Your task to perform on an android device: delete the emails in spam in the gmail app Image 0: 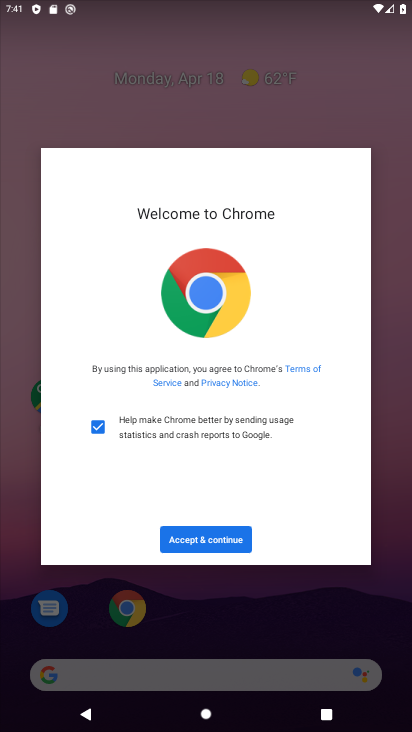
Step 0: press back button
Your task to perform on an android device: delete the emails in spam in the gmail app Image 1: 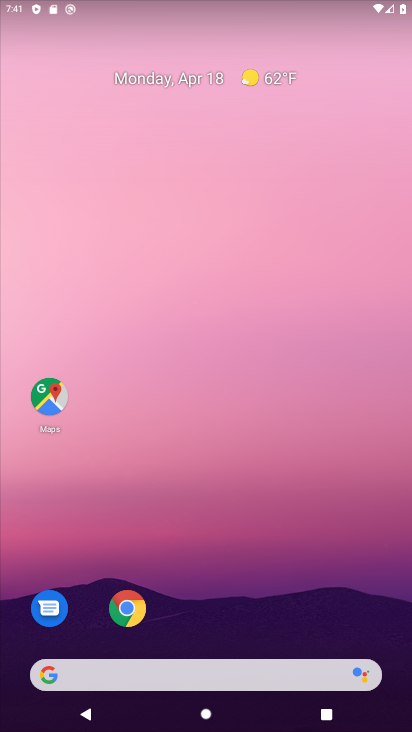
Step 1: drag from (205, 664) to (172, 213)
Your task to perform on an android device: delete the emails in spam in the gmail app Image 2: 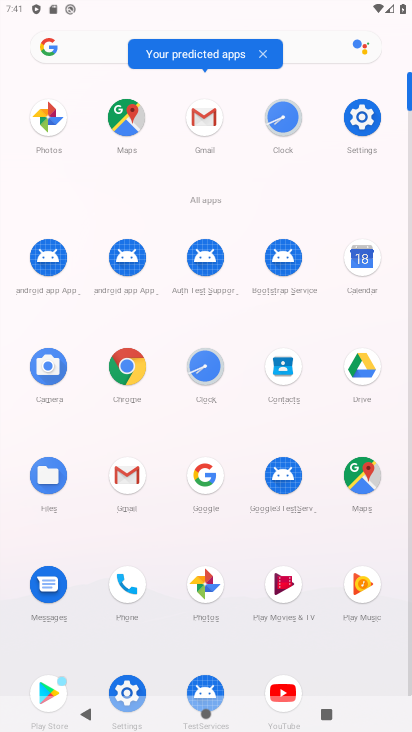
Step 2: click (126, 473)
Your task to perform on an android device: delete the emails in spam in the gmail app Image 3: 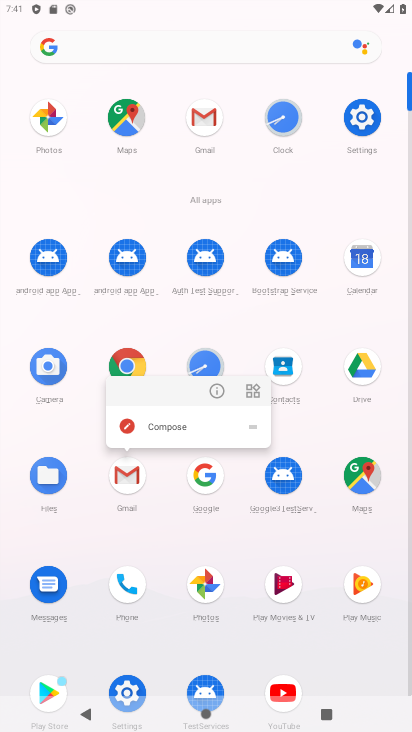
Step 3: click (126, 473)
Your task to perform on an android device: delete the emails in spam in the gmail app Image 4: 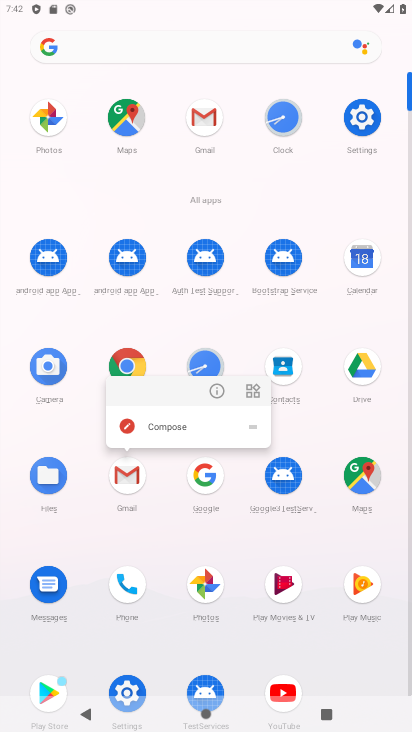
Step 4: click (137, 480)
Your task to perform on an android device: delete the emails in spam in the gmail app Image 5: 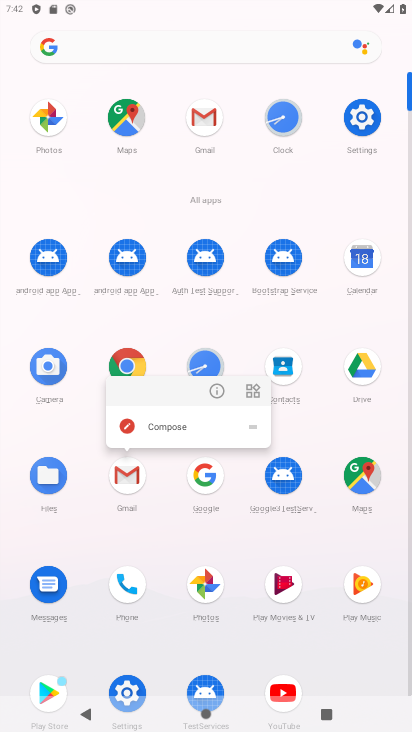
Step 5: click (137, 480)
Your task to perform on an android device: delete the emails in spam in the gmail app Image 6: 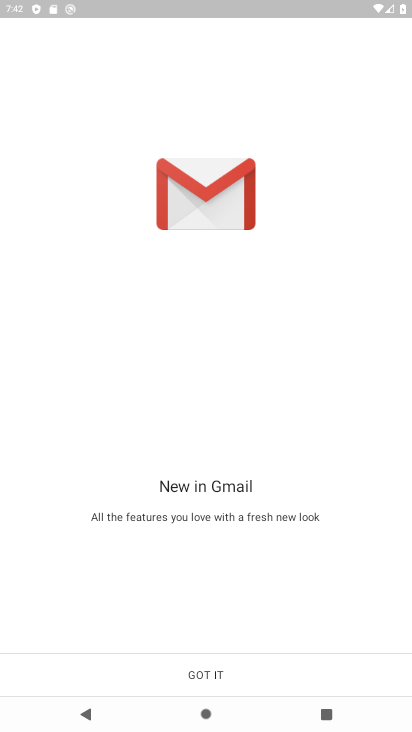
Step 6: click (191, 667)
Your task to perform on an android device: delete the emails in spam in the gmail app Image 7: 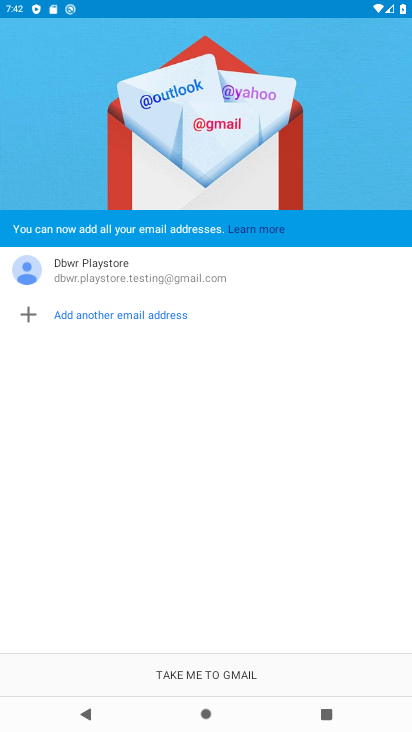
Step 7: click (206, 679)
Your task to perform on an android device: delete the emails in spam in the gmail app Image 8: 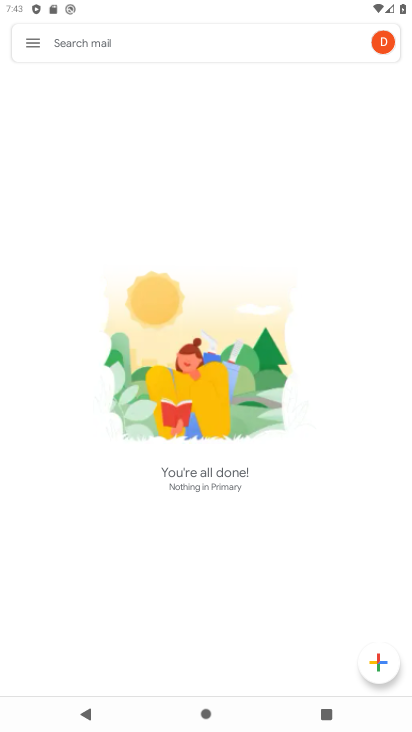
Step 8: click (30, 44)
Your task to perform on an android device: delete the emails in spam in the gmail app Image 9: 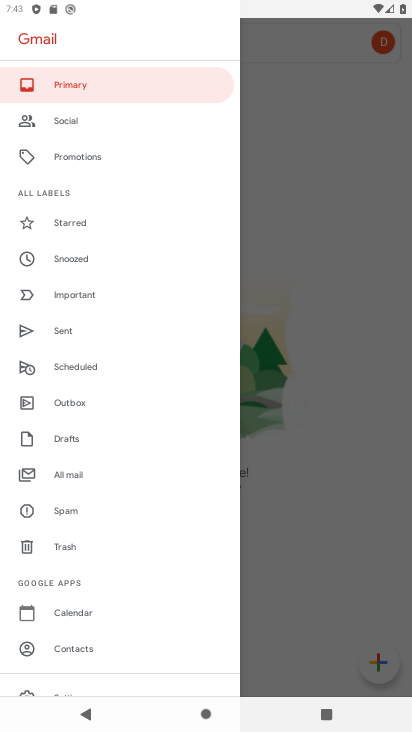
Step 9: click (54, 513)
Your task to perform on an android device: delete the emails in spam in the gmail app Image 10: 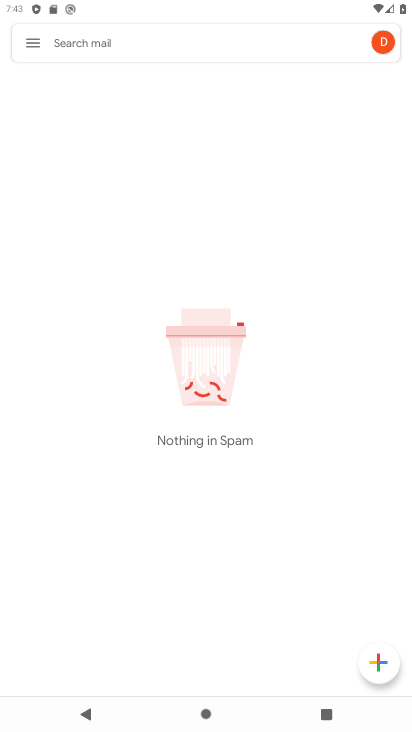
Step 10: task complete